Your task to perform on an android device: stop showing notifications on the lock screen Image 0: 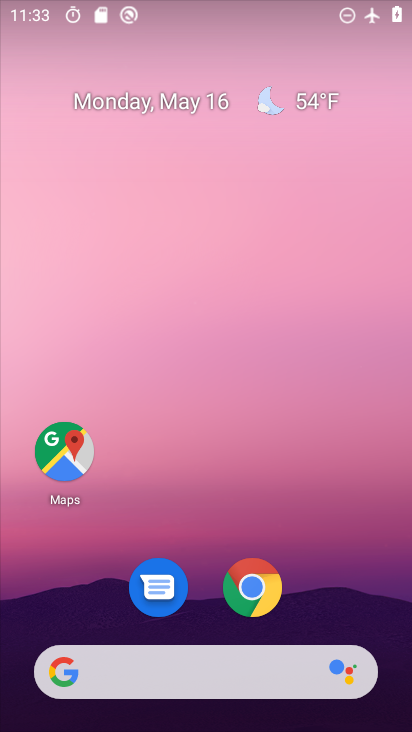
Step 0: drag from (246, 556) to (237, 139)
Your task to perform on an android device: stop showing notifications on the lock screen Image 1: 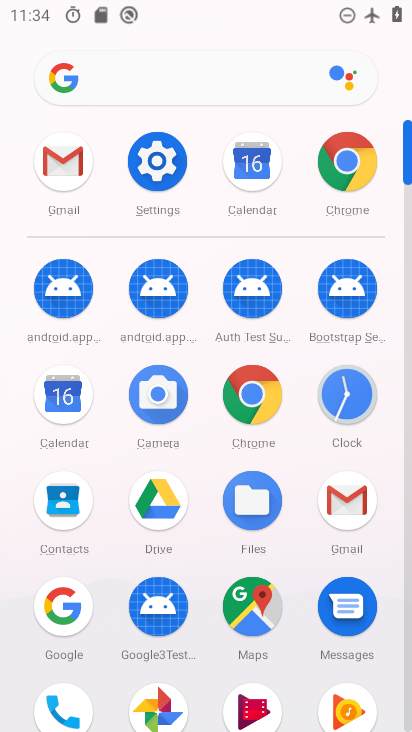
Step 1: click (139, 151)
Your task to perform on an android device: stop showing notifications on the lock screen Image 2: 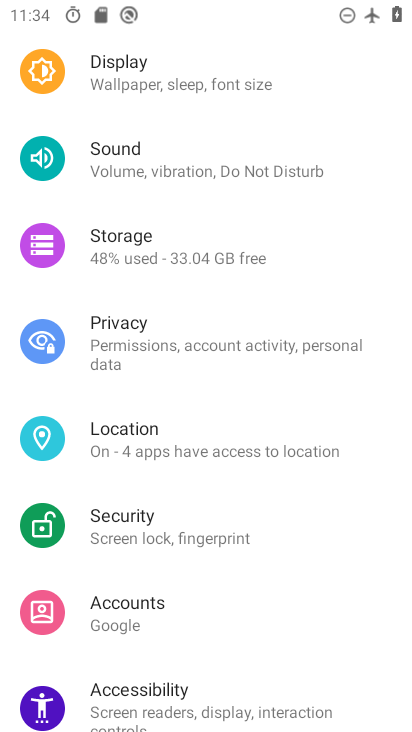
Step 2: drag from (222, 140) to (303, 705)
Your task to perform on an android device: stop showing notifications on the lock screen Image 3: 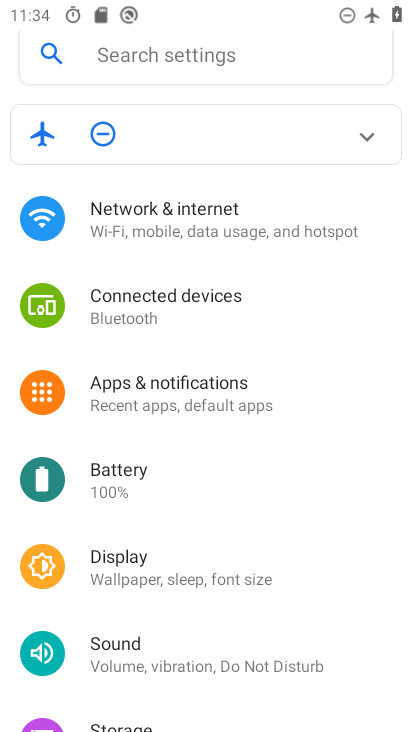
Step 3: click (204, 384)
Your task to perform on an android device: stop showing notifications on the lock screen Image 4: 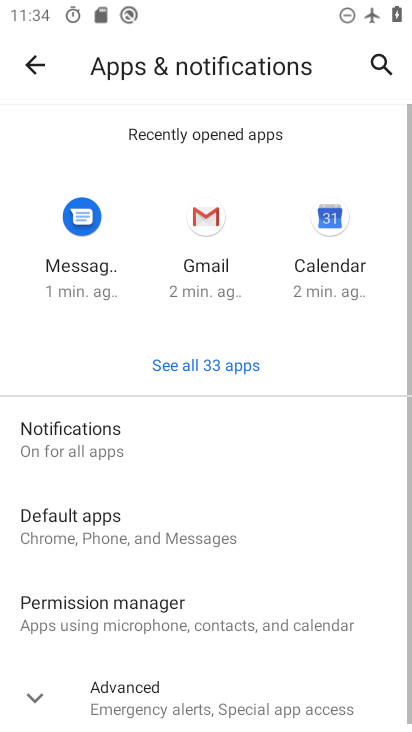
Step 4: click (155, 440)
Your task to perform on an android device: stop showing notifications on the lock screen Image 5: 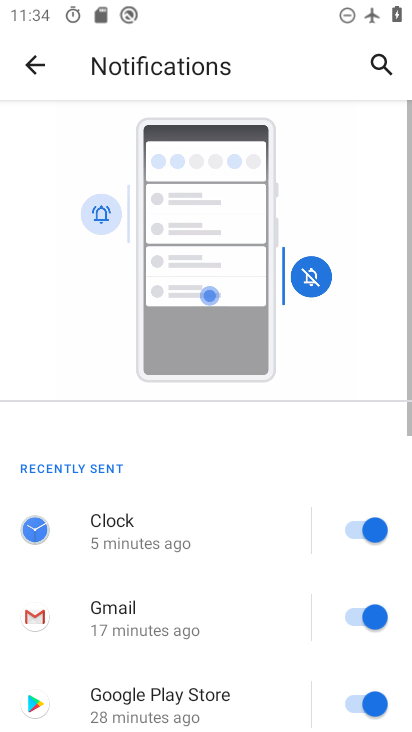
Step 5: drag from (216, 597) to (288, 112)
Your task to perform on an android device: stop showing notifications on the lock screen Image 6: 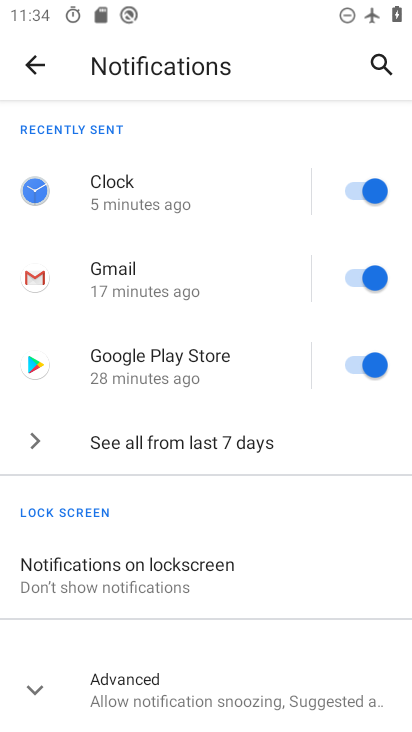
Step 6: click (194, 569)
Your task to perform on an android device: stop showing notifications on the lock screen Image 7: 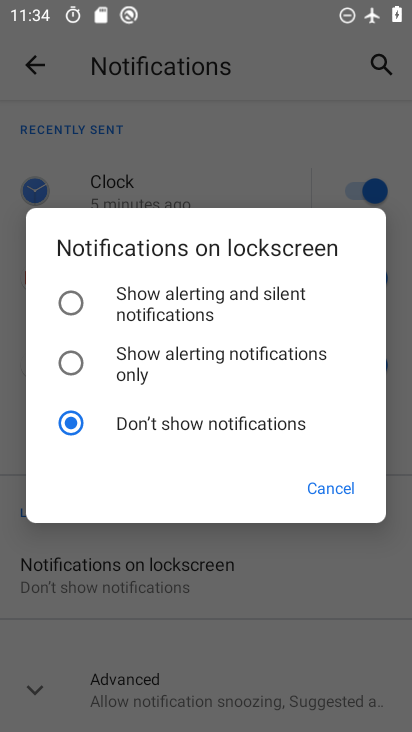
Step 7: task complete